Your task to perform on an android device: find snoozed emails in the gmail app Image 0: 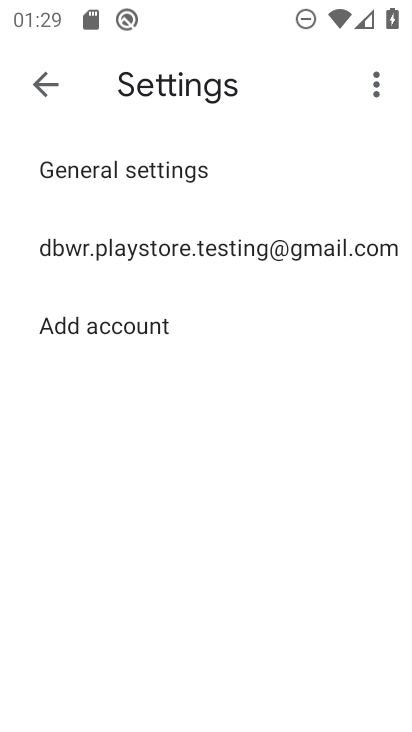
Step 0: drag from (178, 512) to (215, 286)
Your task to perform on an android device: find snoozed emails in the gmail app Image 1: 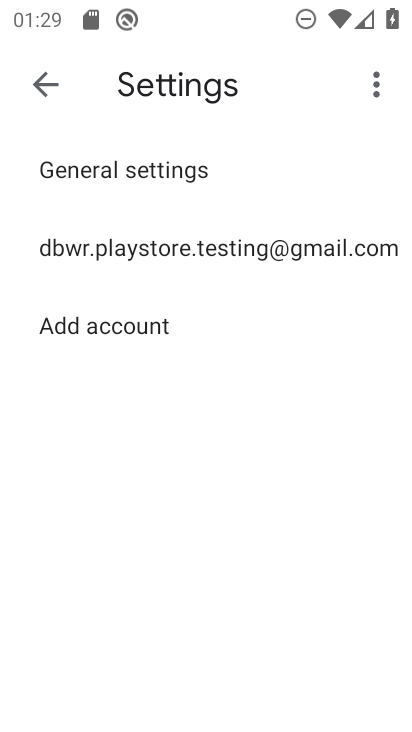
Step 1: press home button
Your task to perform on an android device: find snoozed emails in the gmail app Image 2: 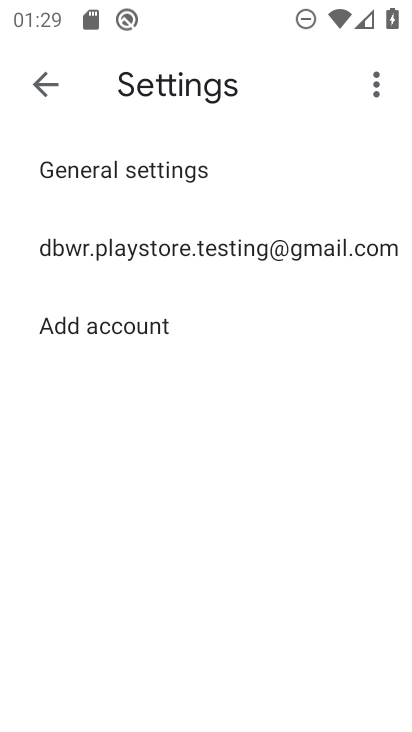
Step 2: press home button
Your task to perform on an android device: find snoozed emails in the gmail app Image 3: 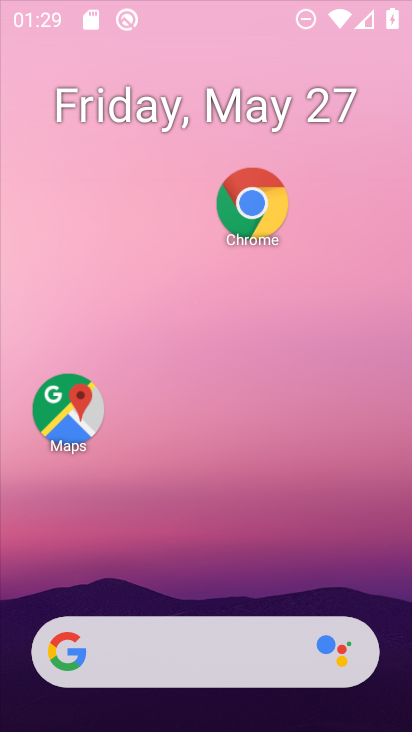
Step 3: drag from (151, 567) to (240, 35)
Your task to perform on an android device: find snoozed emails in the gmail app Image 4: 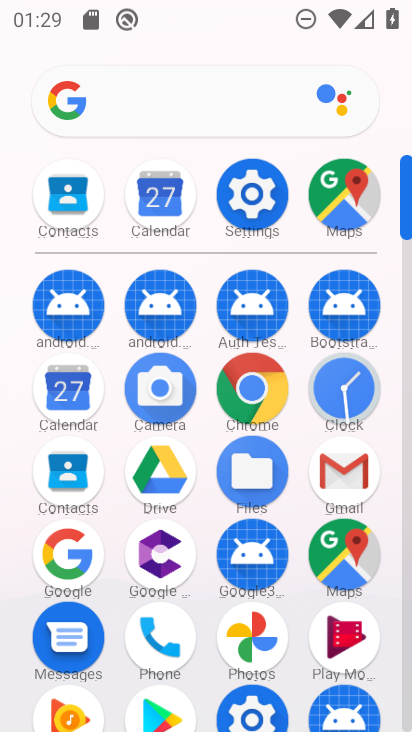
Step 4: click (355, 477)
Your task to perform on an android device: find snoozed emails in the gmail app Image 5: 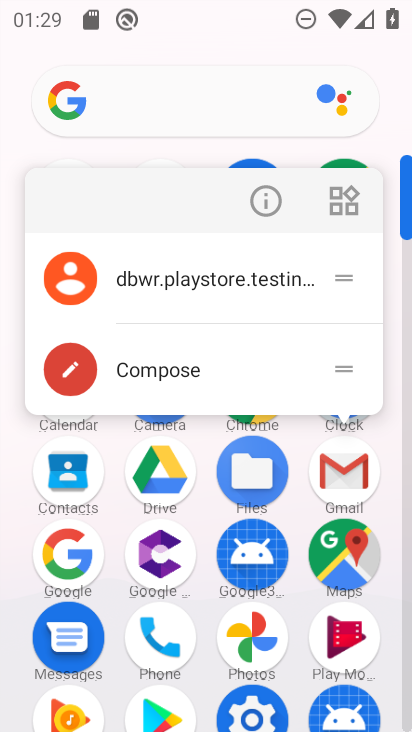
Step 5: click (269, 208)
Your task to perform on an android device: find snoozed emails in the gmail app Image 6: 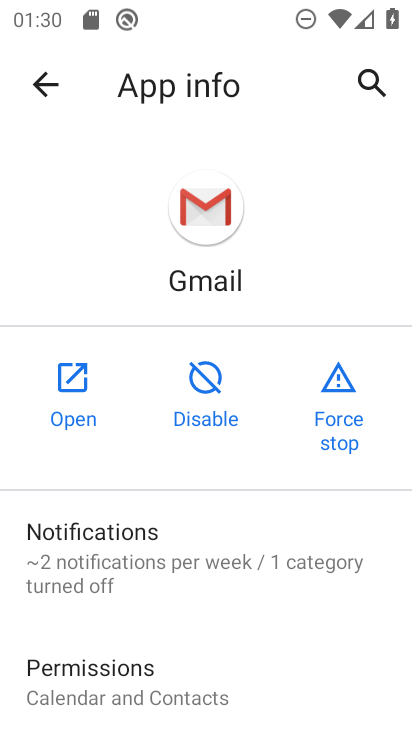
Step 6: click (59, 398)
Your task to perform on an android device: find snoozed emails in the gmail app Image 7: 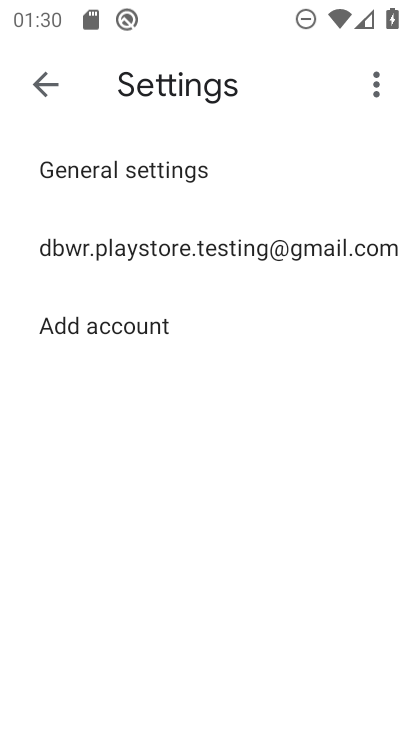
Step 7: click (40, 96)
Your task to perform on an android device: find snoozed emails in the gmail app Image 8: 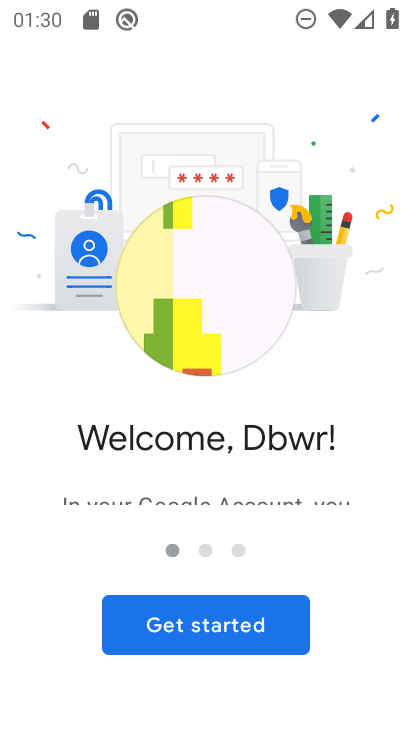
Step 8: click (166, 656)
Your task to perform on an android device: find snoozed emails in the gmail app Image 9: 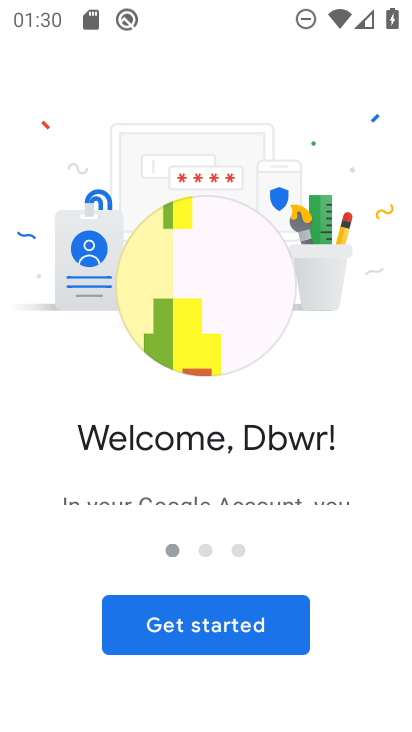
Step 9: click (161, 634)
Your task to perform on an android device: find snoozed emails in the gmail app Image 10: 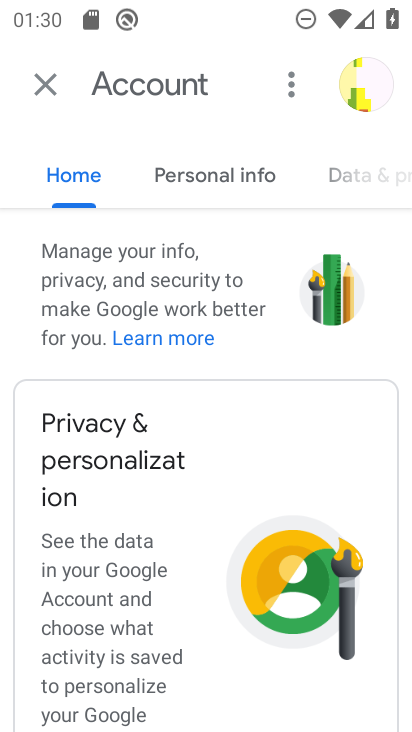
Step 10: click (49, 90)
Your task to perform on an android device: find snoozed emails in the gmail app Image 11: 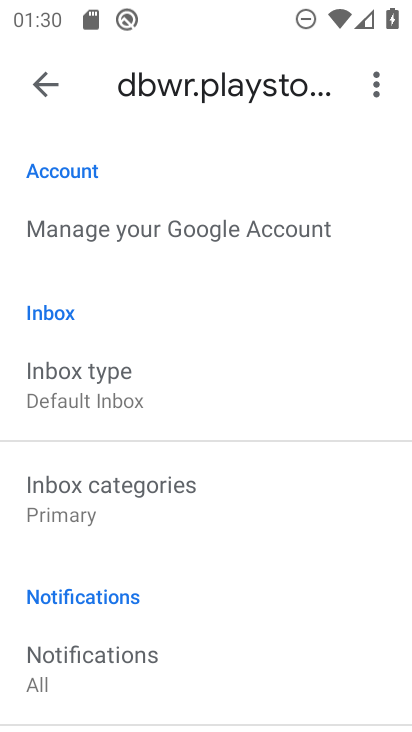
Step 11: click (46, 48)
Your task to perform on an android device: find snoozed emails in the gmail app Image 12: 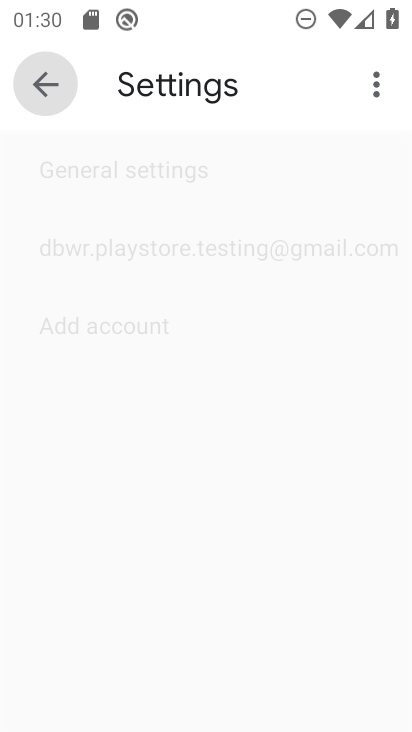
Step 12: click (46, 95)
Your task to perform on an android device: find snoozed emails in the gmail app Image 13: 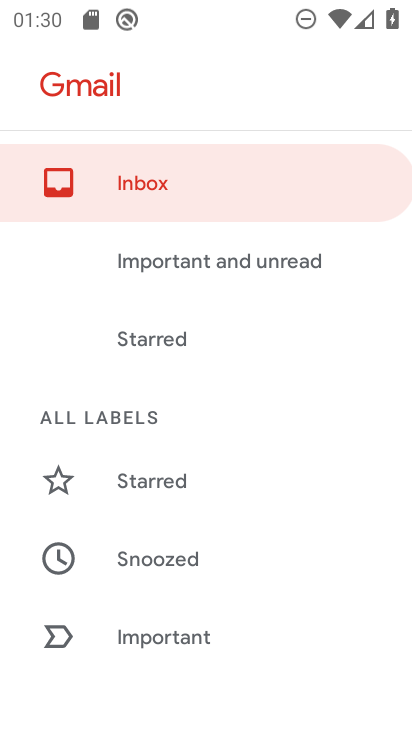
Step 13: click (46, 97)
Your task to perform on an android device: find snoozed emails in the gmail app Image 14: 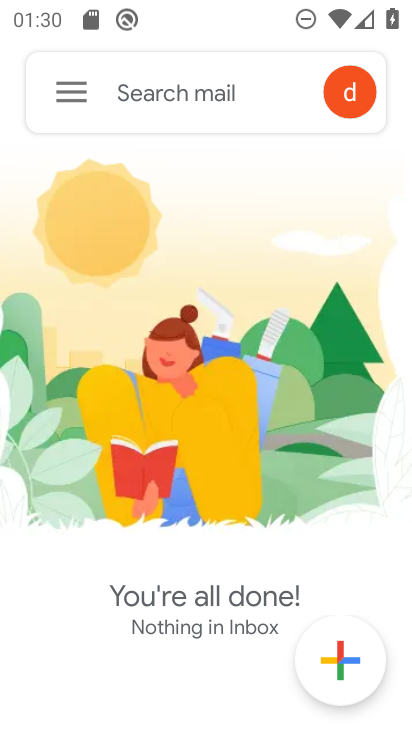
Step 14: click (56, 81)
Your task to perform on an android device: find snoozed emails in the gmail app Image 15: 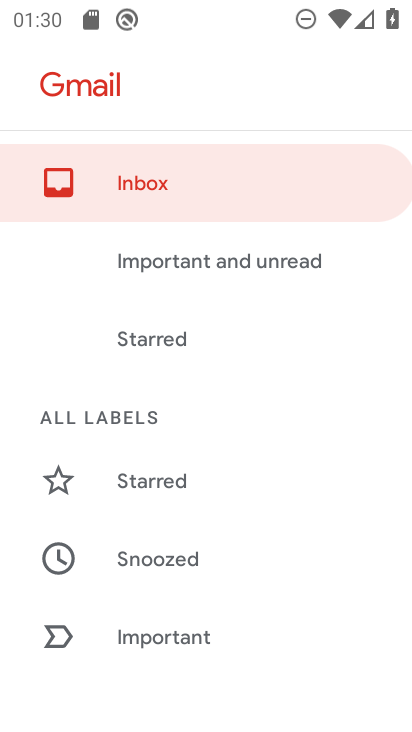
Step 15: click (162, 537)
Your task to perform on an android device: find snoozed emails in the gmail app Image 16: 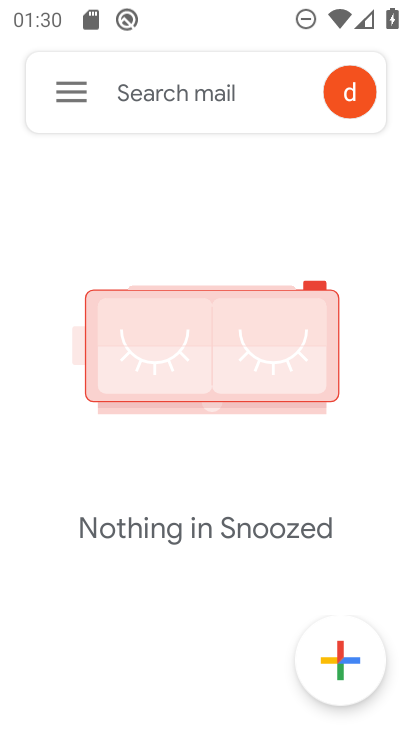
Step 16: task complete